Your task to perform on an android device: Go to CNN.com Image 0: 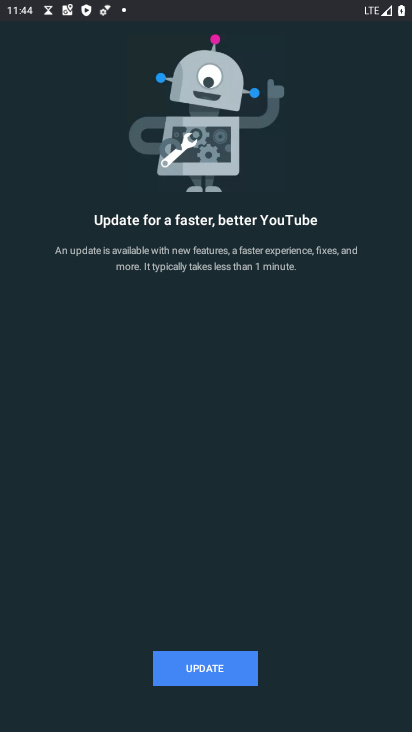
Step 0: press home button
Your task to perform on an android device: Go to CNN.com Image 1: 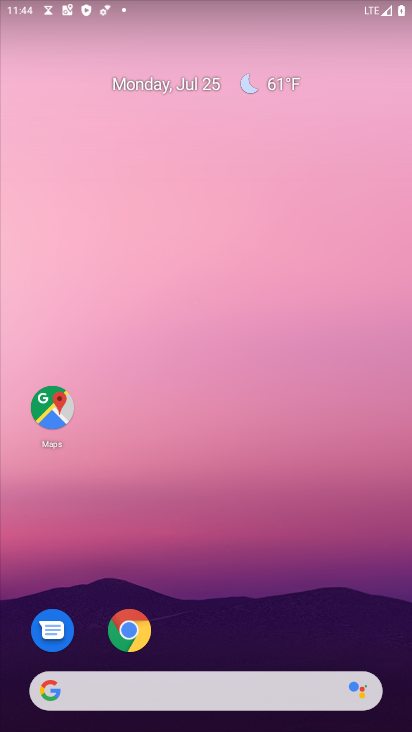
Step 1: click (127, 626)
Your task to perform on an android device: Go to CNN.com Image 2: 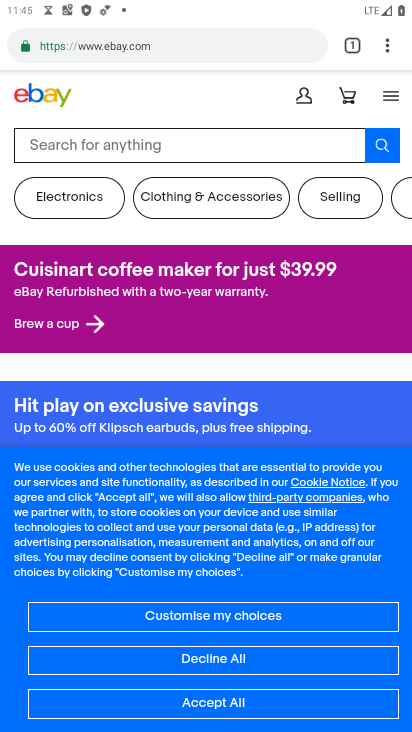
Step 2: click (188, 47)
Your task to perform on an android device: Go to CNN.com Image 3: 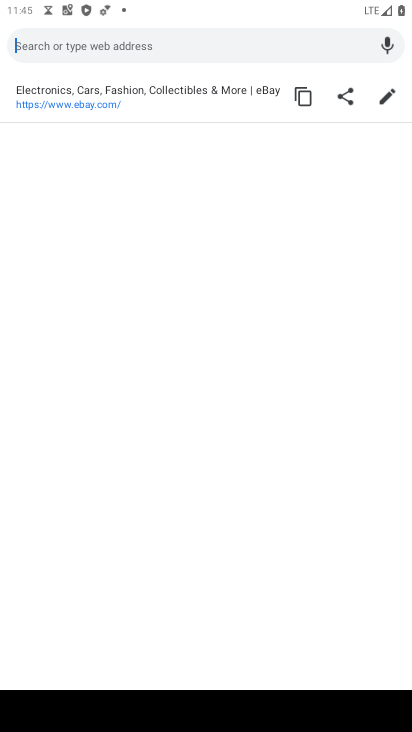
Step 3: type "CNN.com"
Your task to perform on an android device: Go to CNN.com Image 4: 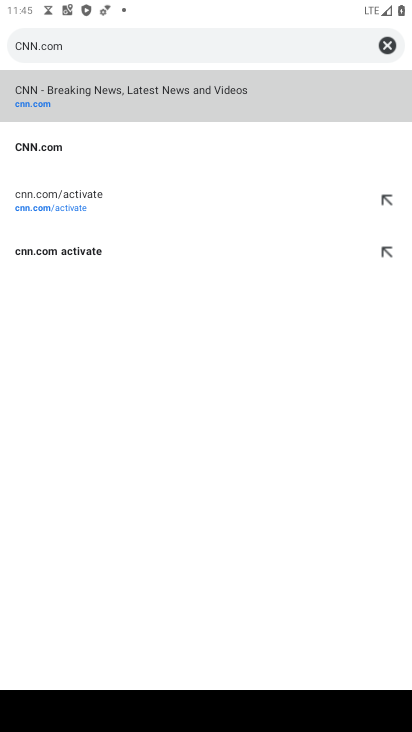
Step 4: click (63, 89)
Your task to perform on an android device: Go to CNN.com Image 5: 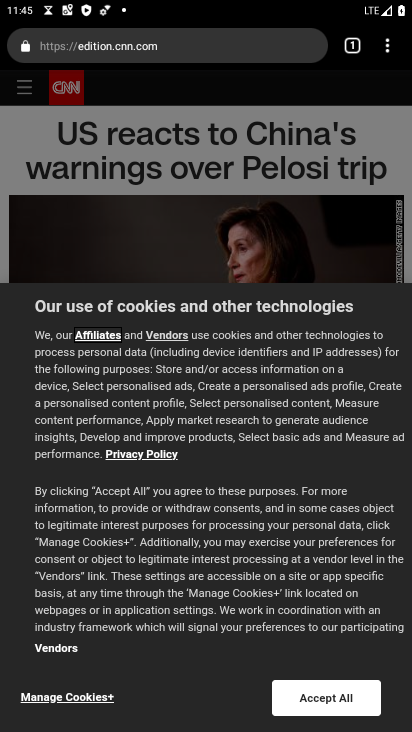
Step 5: task complete